Your task to perform on an android device: Go to location settings Image 0: 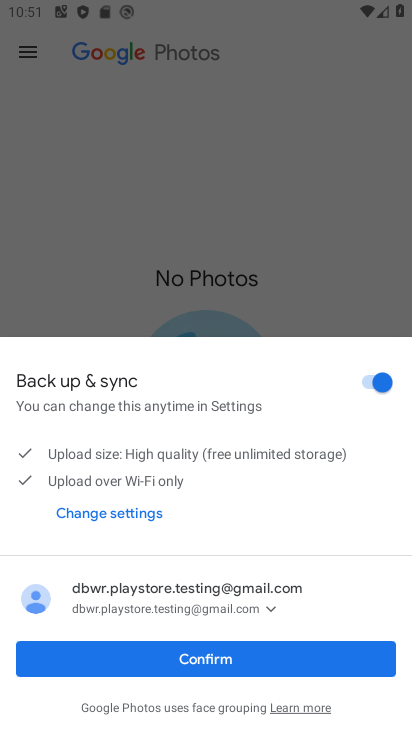
Step 0: press back button
Your task to perform on an android device: Go to location settings Image 1: 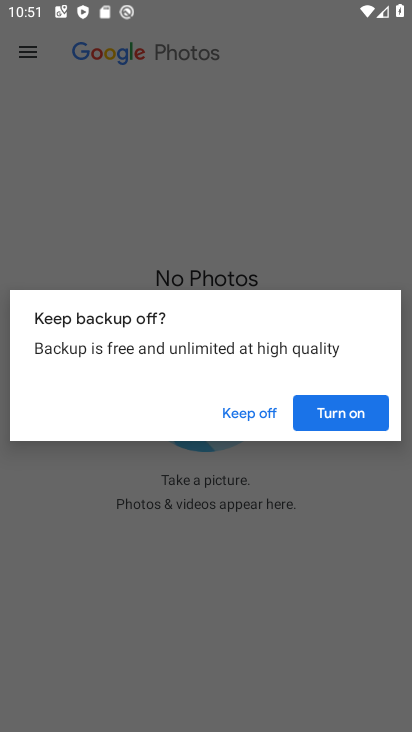
Step 1: press home button
Your task to perform on an android device: Go to location settings Image 2: 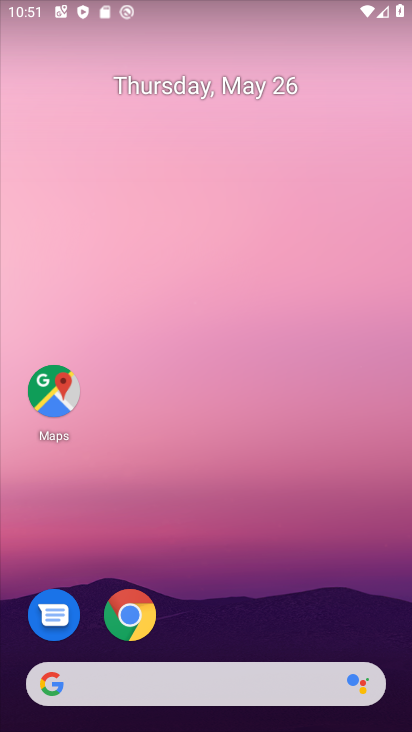
Step 2: drag from (230, 529) to (266, 3)
Your task to perform on an android device: Go to location settings Image 3: 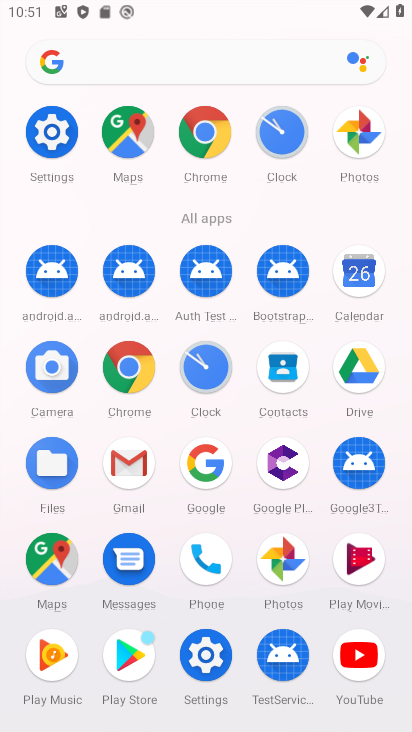
Step 3: click (58, 130)
Your task to perform on an android device: Go to location settings Image 4: 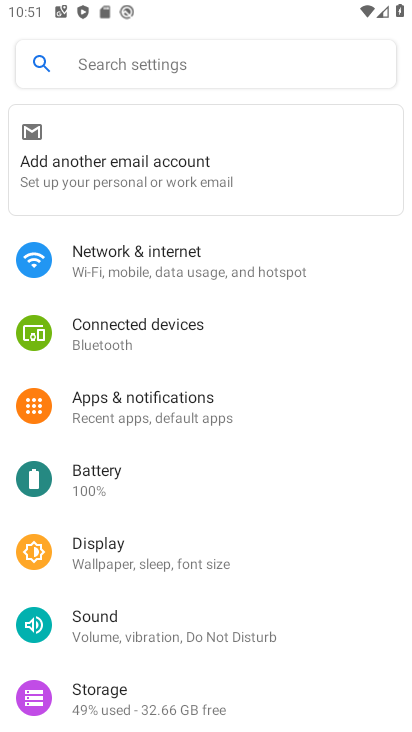
Step 4: drag from (156, 631) to (243, 151)
Your task to perform on an android device: Go to location settings Image 5: 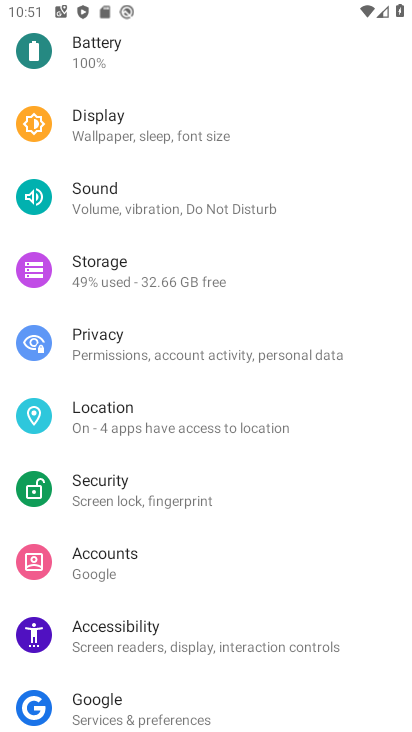
Step 5: click (148, 417)
Your task to perform on an android device: Go to location settings Image 6: 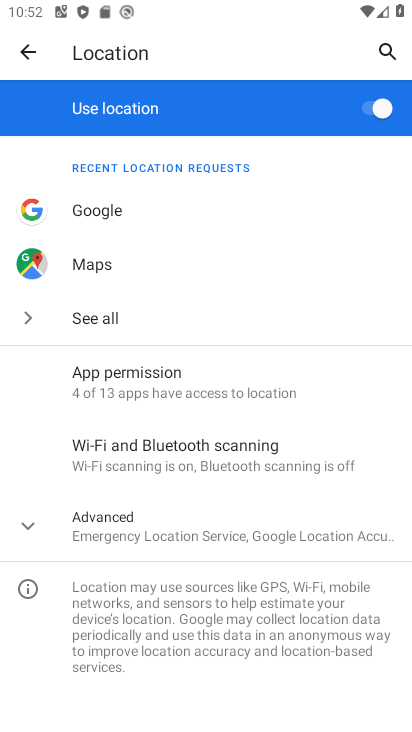
Step 6: task complete